Your task to perform on an android device: turn on bluetooth scan Image 0: 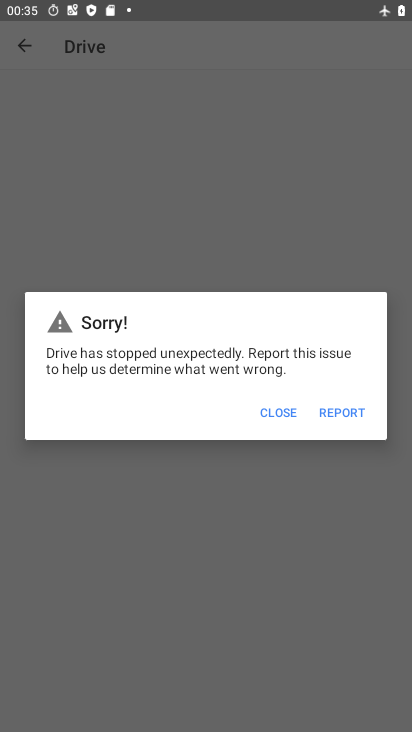
Step 0: press home button
Your task to perform on an android device: turn on bluetooth scan Image 1: 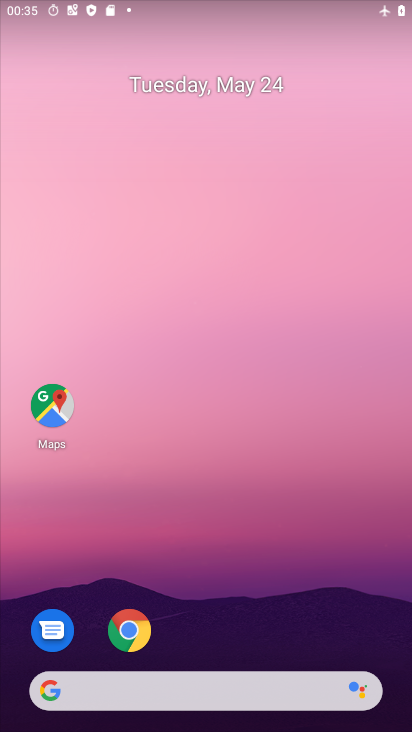
Step 1: drag from (214, 661) to (232, 4)
Your task to perform on an android device: turn on bluetooth scan Image 2: 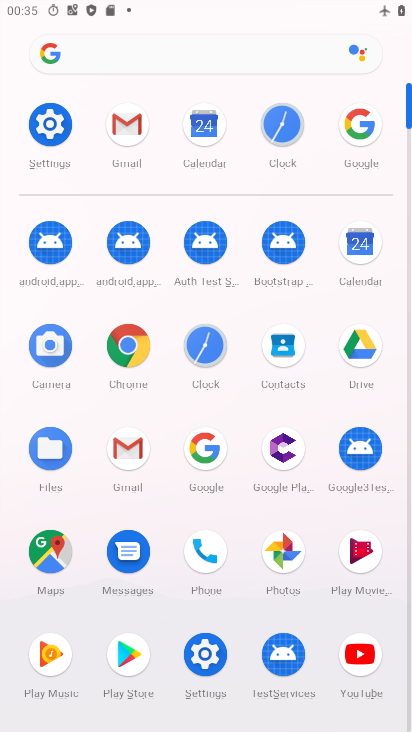
Step 2: click (49, 128)
Your task to perform on an android device: turn on bluetooth scan Image 3: 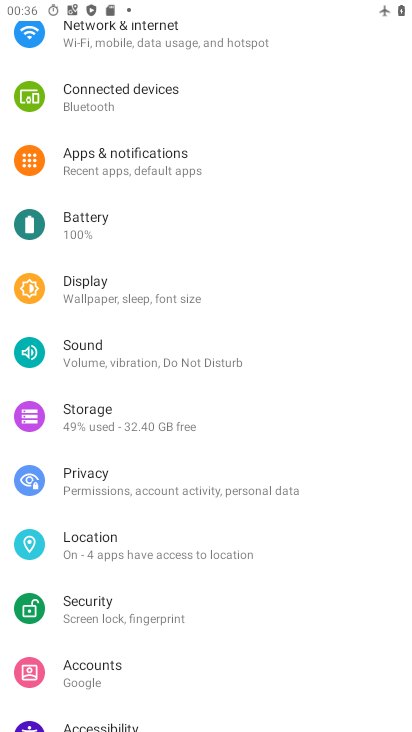
Step 3: click (85, 549)
Your task to perform on an android device: turn on bluetooth scan Image 4: 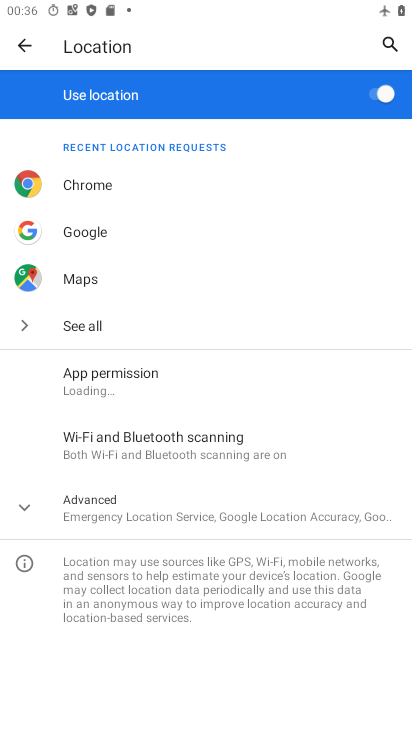
Step 4: click (144, 437)
Your task to perform on an android device: turn on bluetooth scan Image 5: 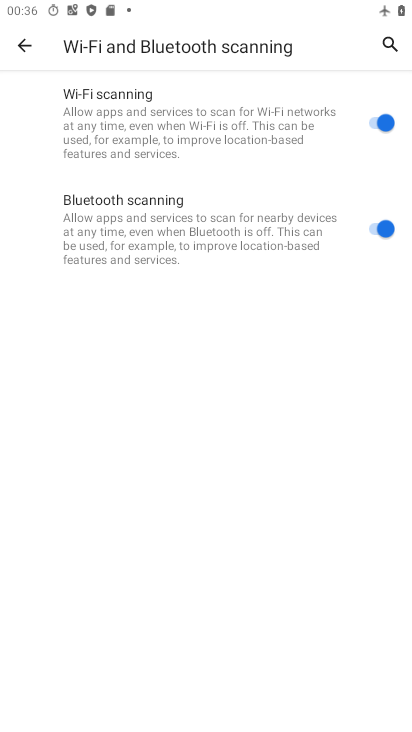
Step 5: task complete